Your task to perform on an android device: turn off javascript in the chrome app Image 0: 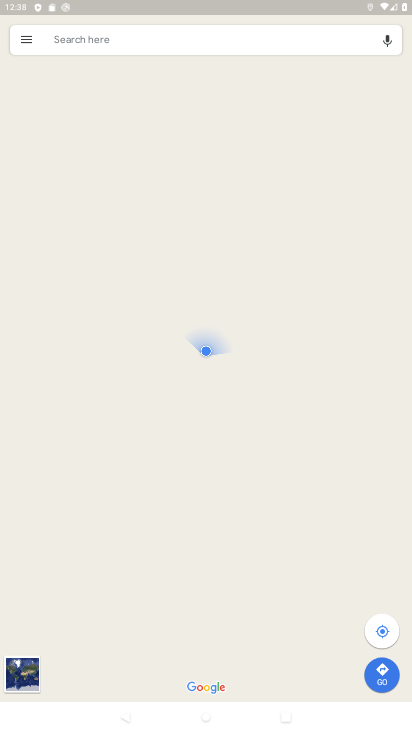
Step 0: press home button
Your task to perform on an android device: turn off javascript in the chrome app Image 1: 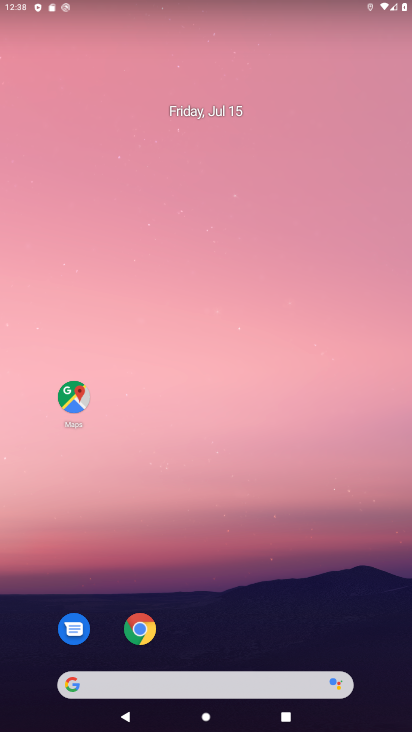
Step 1: drag from (233, 660) to (299, 76)
Your task to perform on an android device: turn off javascript in the chrome app Image 2: 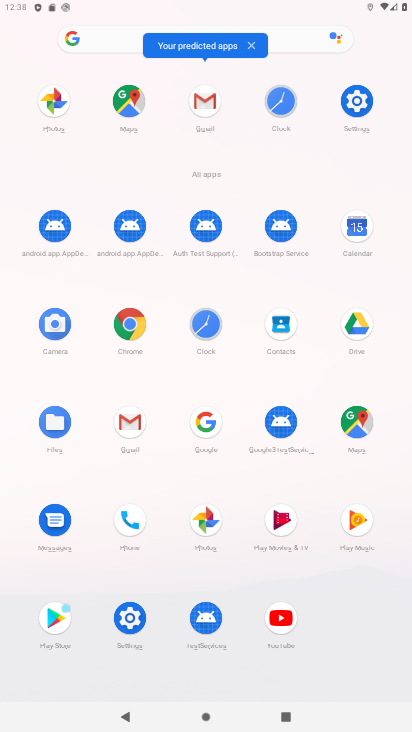
Step 2: click (132, 333)
Your task to perform on an android device: turn off javascript in the chrome app Image 3: 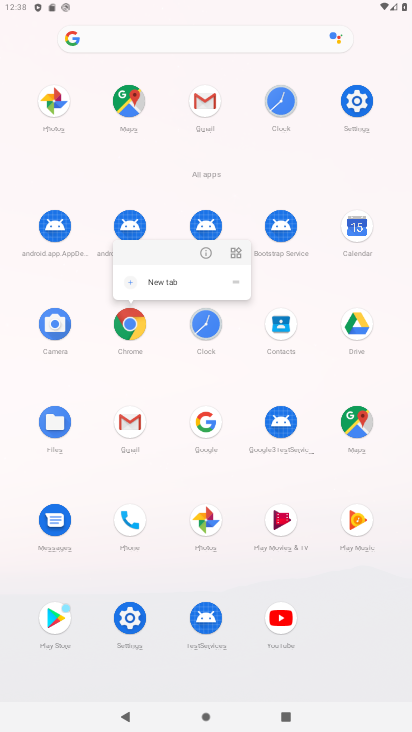
Step 3: click (145, 329)
Your task to perform on an android device: turn off javascript in the chrome app Image 4: 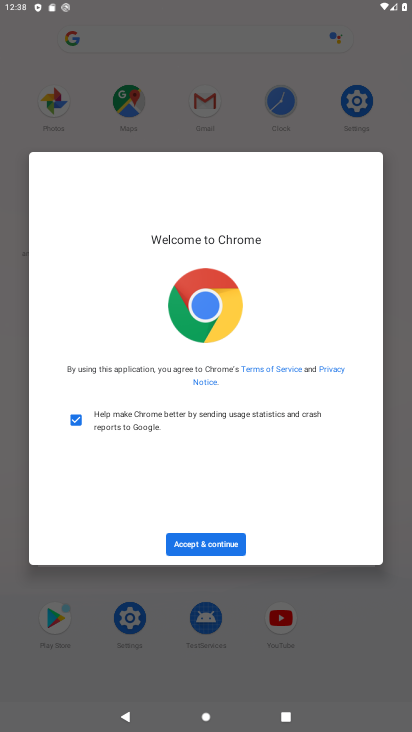
Step 4: click (190, 543)
Your task to perform on an android device: turn off javascript in the chrome app Image 5: 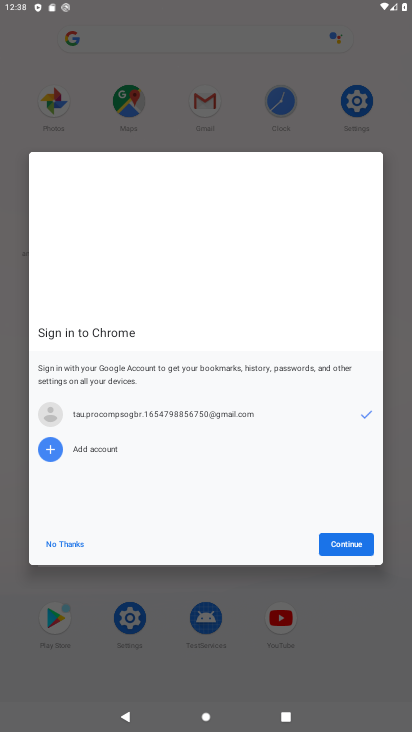
Step 5: click (358, 543)
Your task to perform on an android device: turn off javascript in the chrome app Image 6: 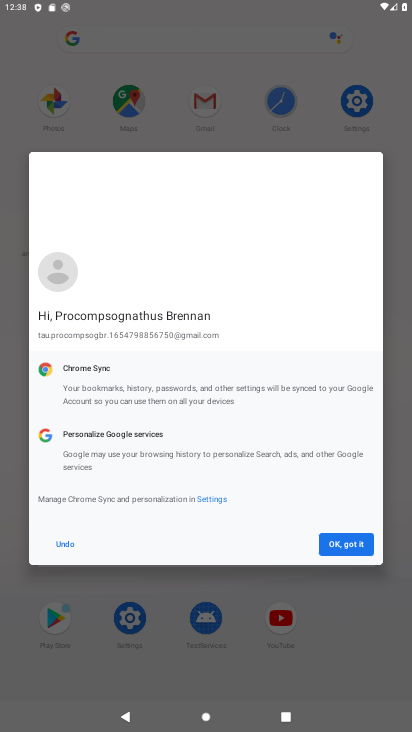
Step 6: click (358, 543)
Your task to perform on an android device: turn off javascript in the chrome app Image 7: 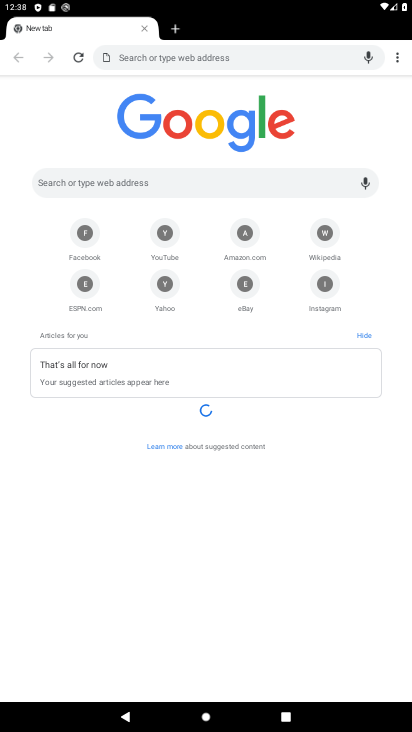
Step 7: drag from (394, 53) to (294, 251)
Your task to perform on an android device: turn off javascript in the chrome app Image 8: 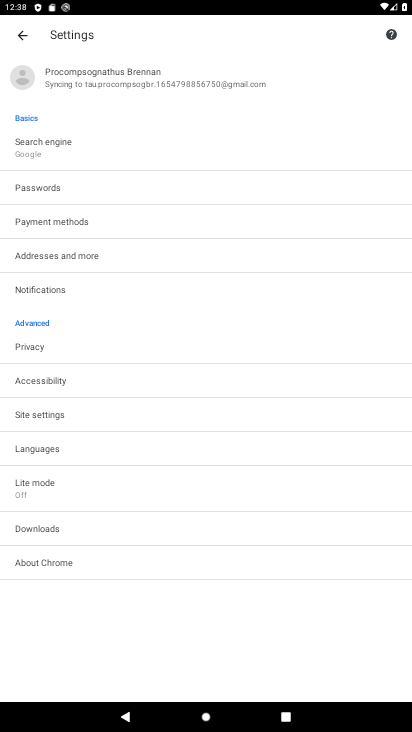
Step 8: click (66, 420)
Your task to perform on an android device: turn off javascript in the chrome app Image 9: 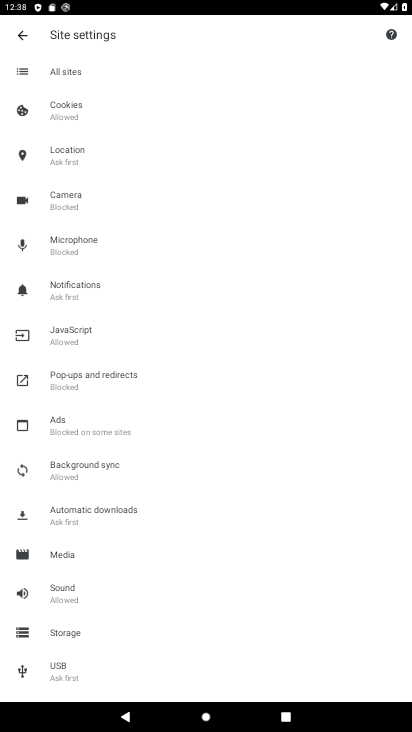
Step 9: click (85, 330)
Your task to perform on an android device: turn off javascript in the chrome app Image 10: 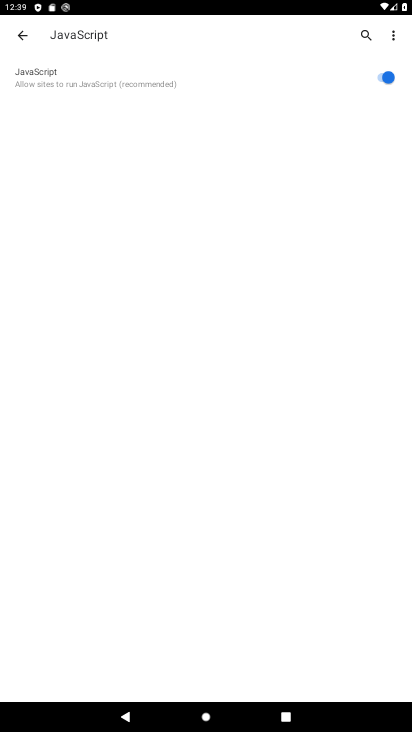
Step 10: click (379, 80)
Your task to perform on an android device: turn off javascript in the chrome app Image 11: 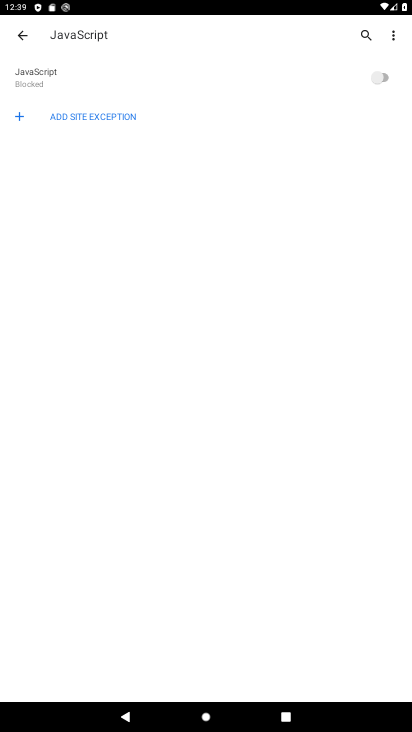
Step 11: task complete